Your task to perform on an android device: turn off wifi Image 0: 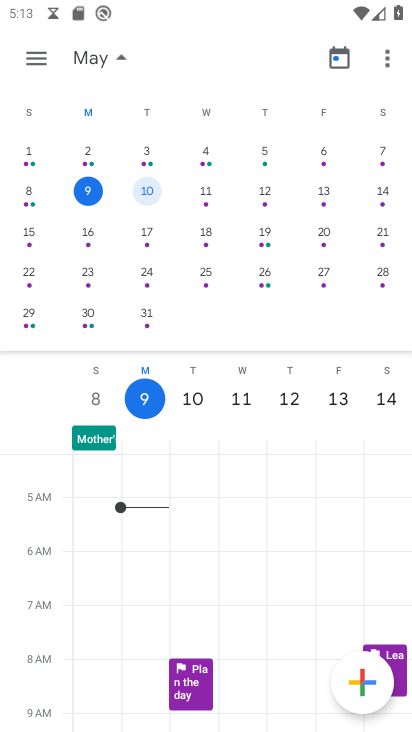
Step 0: press home button
Your task to perform on an android device: turn off wifi Image 1: 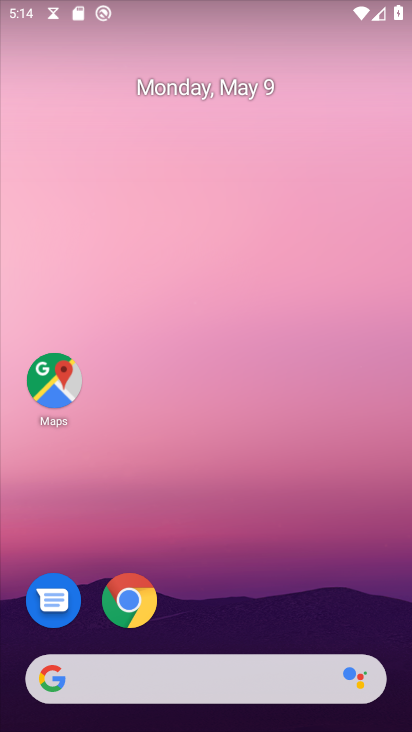
Step 1: drag from (262, 690) to (173, 34)
Your task to perform on an android device: turn off wifi Image 2: 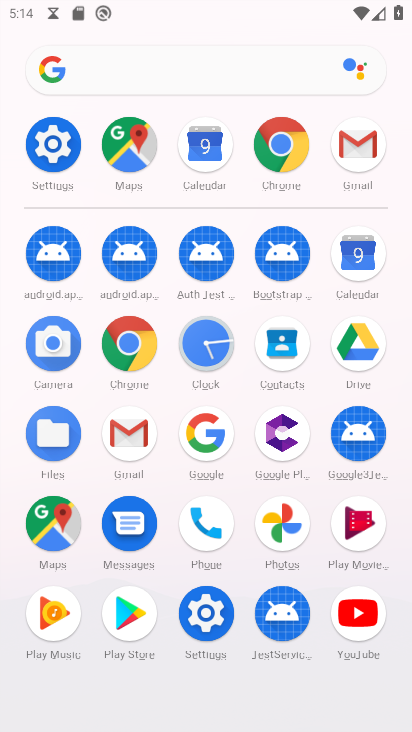
Step 2: click (221, 606)
Your task to perform on an android device: turn off wifi Image 3: 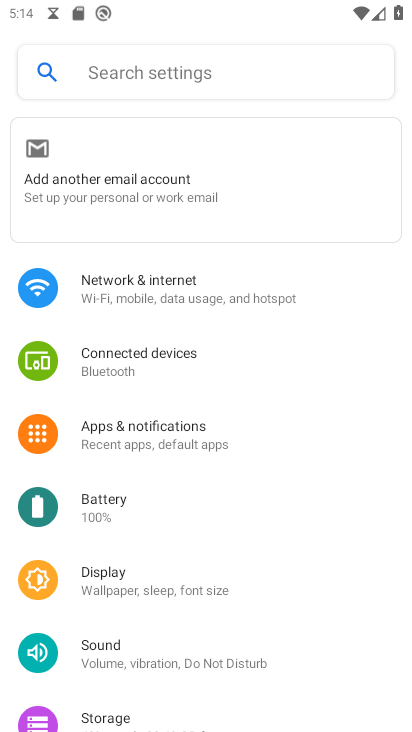
Step 3: click (162, 299)
Your task to perform on an android device: turn off wifi Image 4: 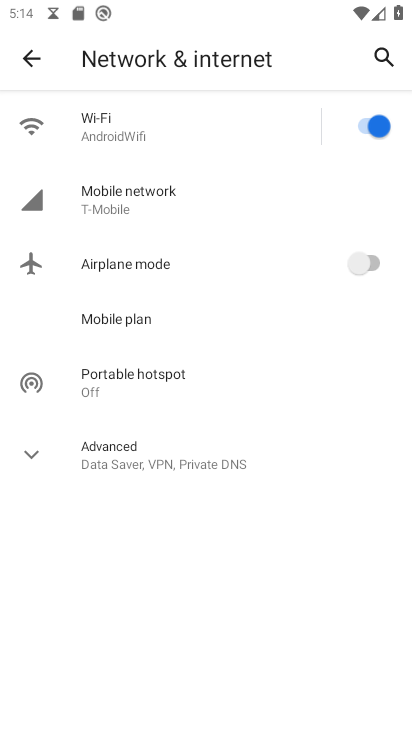
Step 4: click (359, 127)
Your task to perform on an android device: turn off wifi Image 5: 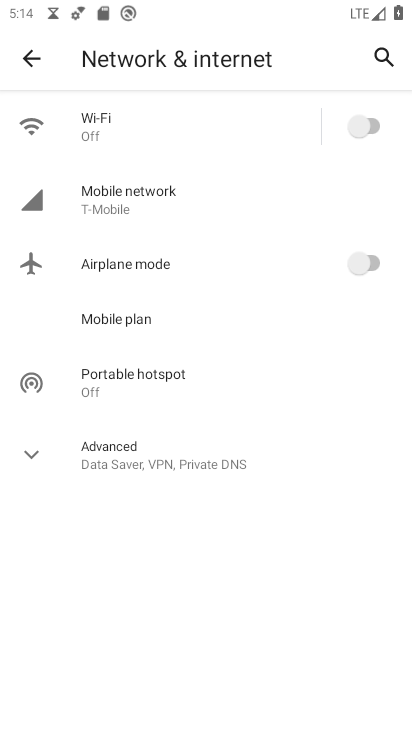
Step 5: task complete